Your task to perform on an android device: toggle notification dots Image 0: 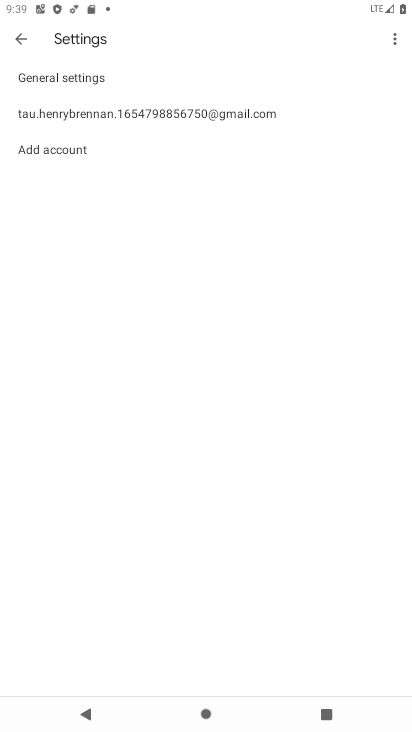
Step 0: press home button
Your task to perform on an android device: toggle notification dots Image 1: 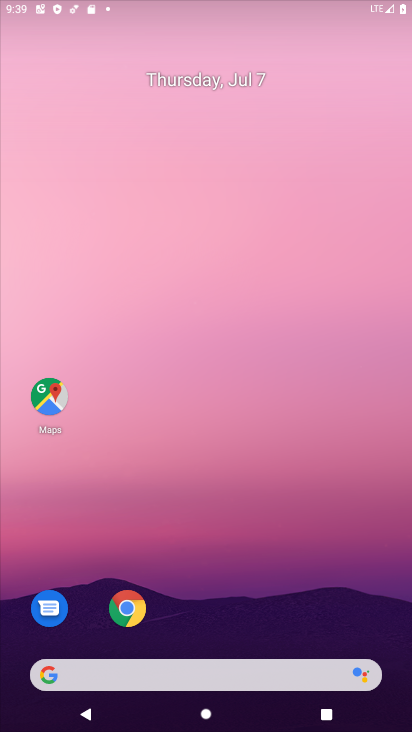
Step 1: drag from (213, 605) to (258, 77)
Your task to perform on an android device: toggle notification dots Image 2: 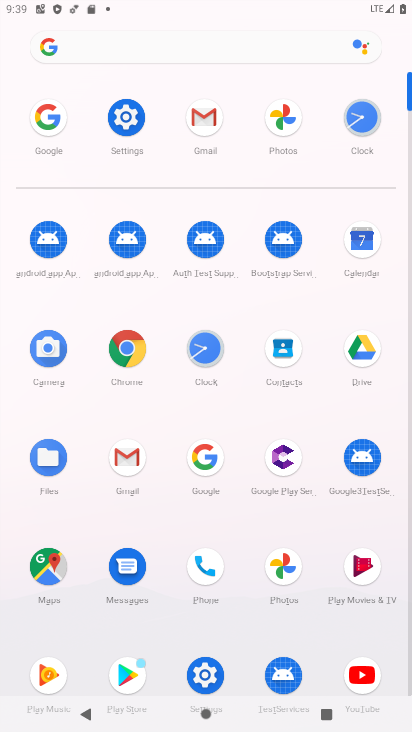
Step 2: click (213, 678)
Your task to perform on an android device: toggle notification dots Image 3: 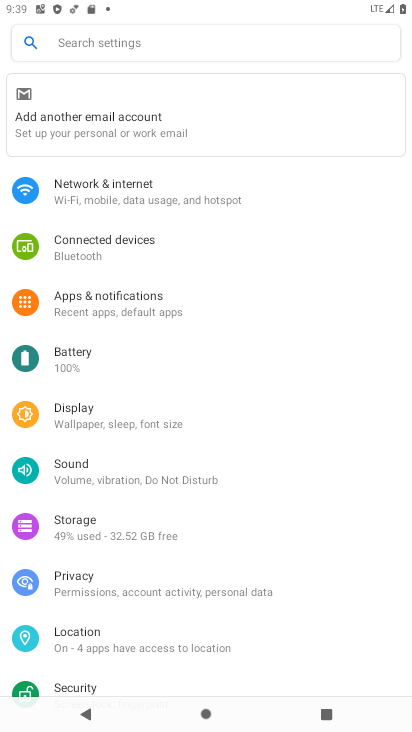
Step 3: click (99, 308)
Your task to perform on an android device: toggle notification dots Image 4: 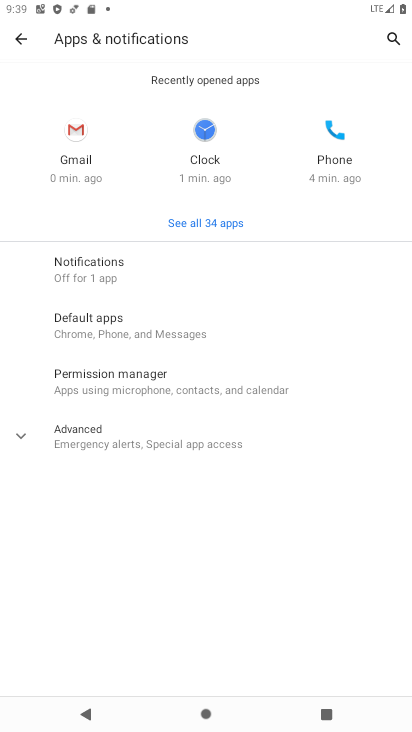
Step 4: click (93, 278)
Your task to perform on an android device: toggle notification dots Image 5: 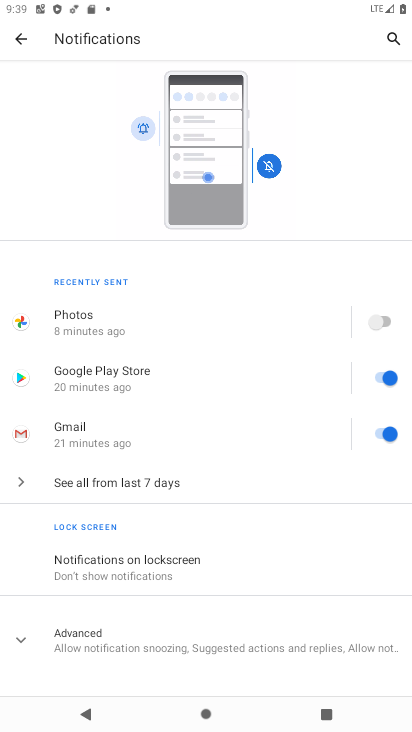
Step 5: drag from (175, 635) to (174, 293)
Your task to perform on an android device: toggle notification dots Image 6: 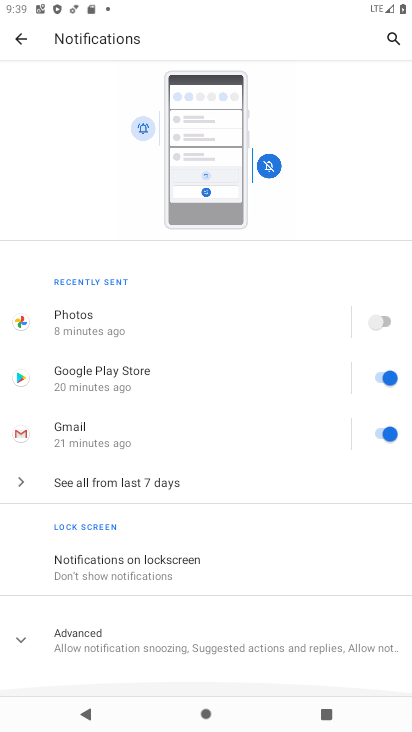
Step 6: click (95, 625)
Your task to perform on an android device: toggle notification dots Image 7: 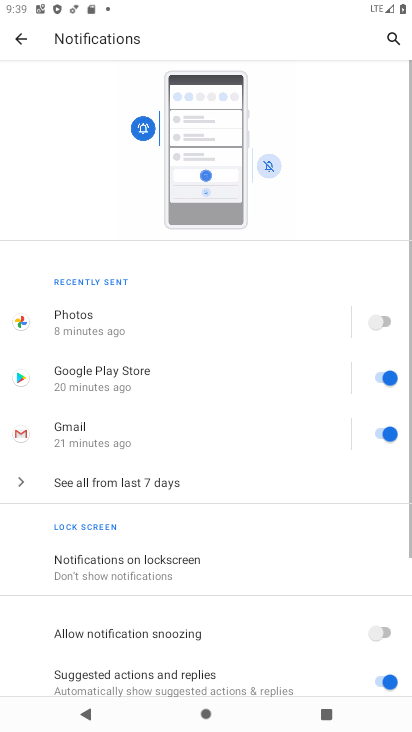
Step 7: drag from (277, 598) to (286, 298)
Your task to perform on an android device: toggle notification dots Image 8: 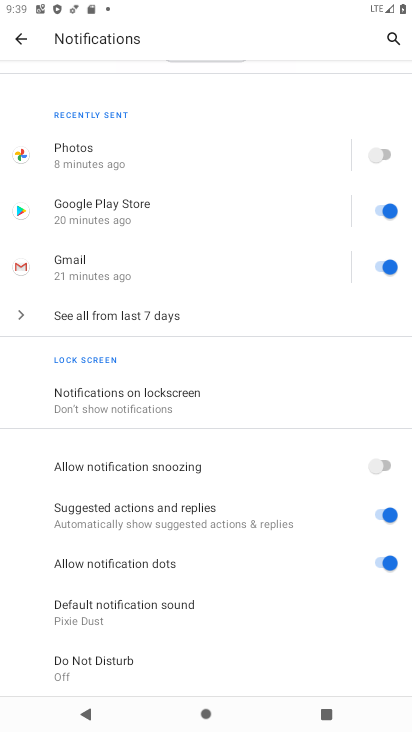
Step 8: click (384, 567)
Your task to perform on an android device: toggle notification dots Image 9: 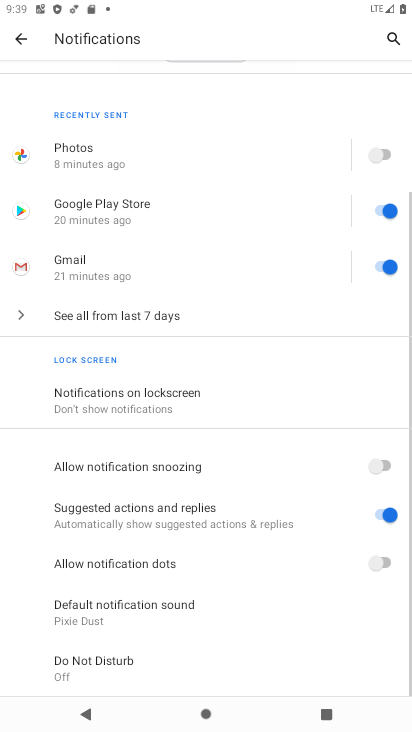
Step 9: task complete